Your task to perform on an android device: allow cookies in the chrome app Image 0: 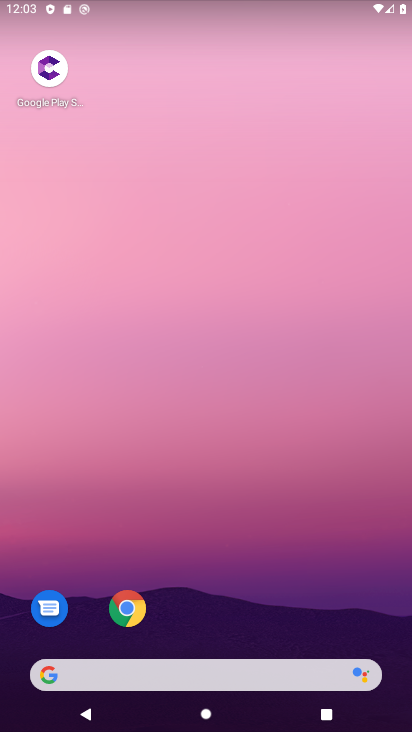
Step 0: click (118, 612)
Your task to perform on an android device: allow cookies in the chrome app Image 1: 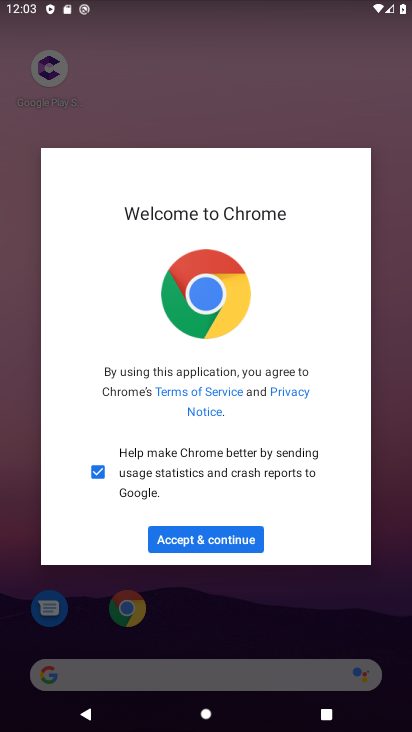
Step 1: click (227, 538)
Your task to perform on an android device: allow cookies in the chrome app Image 2: 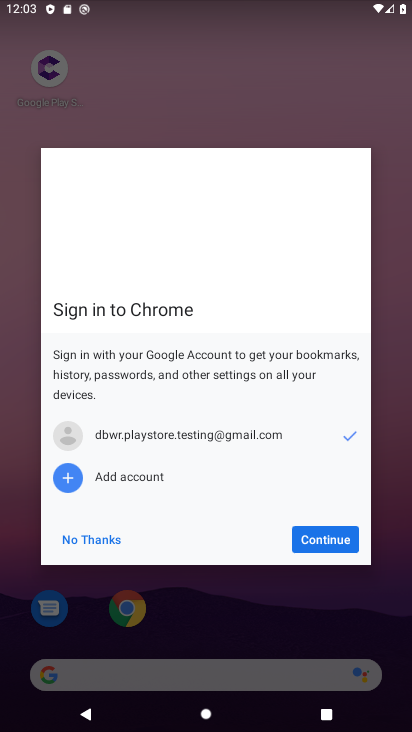
Step 2: click (339, 549)
Your task to perform on an android device: allow cookies in the chrome app Image 3: 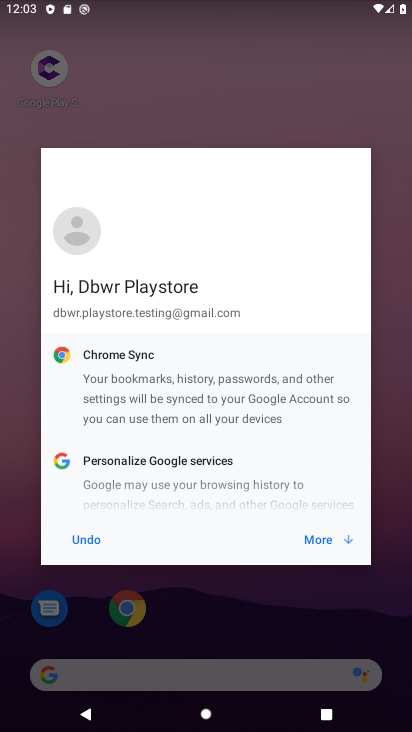
Step 3: click (339, 549)
Your task to perform on an android device: allow cookies in the chrome app Image 4: 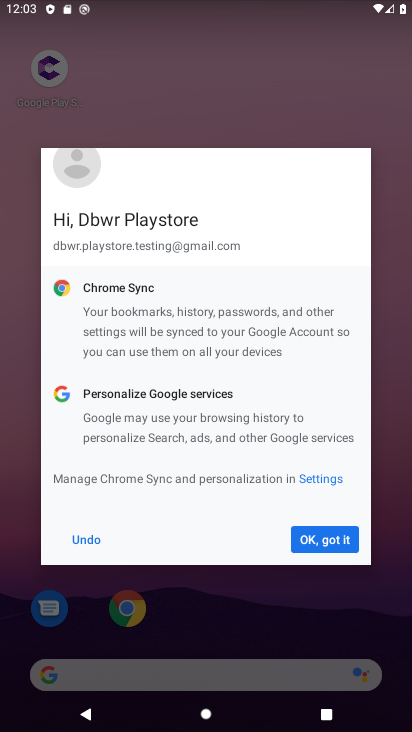
Step 4: click (331, 534)
Your task to perform on an android device: allow cookies in the chrome app Image 5: 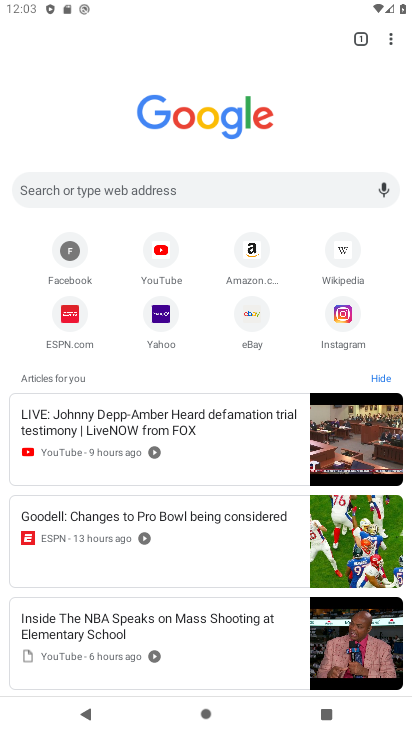
Step 5: click (393, 39)
Your task to perform on an android device: allow cookies in the chrome app Image 6: 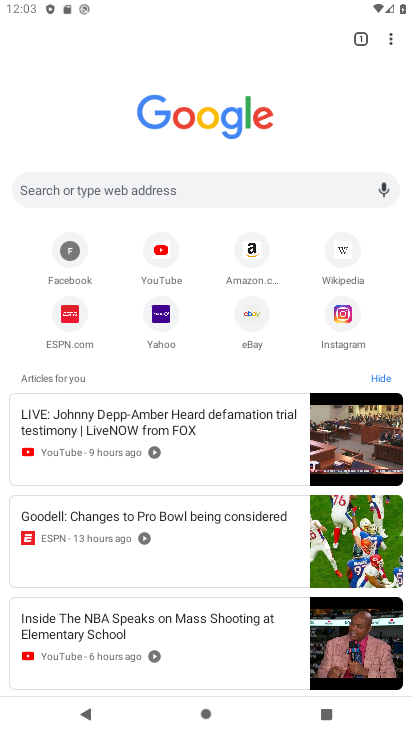
Step 6: click (393, 39)
Your task to perform on an android device: allow cookies in the chrome app Image 7: 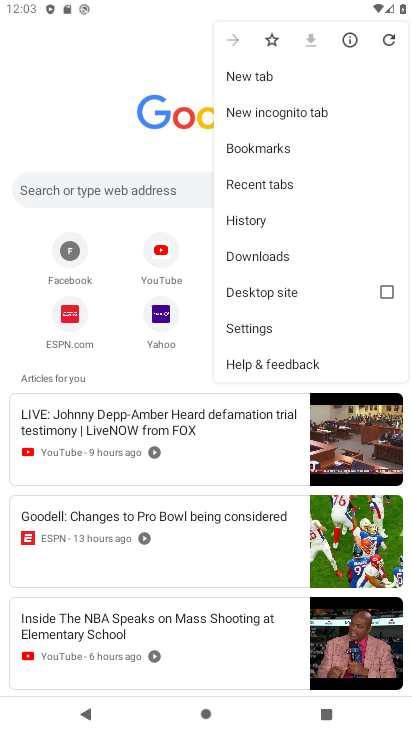
Step 7: click (288, 328)
Your task to perform on an android device: allow cookies in the chrome app Image 8: 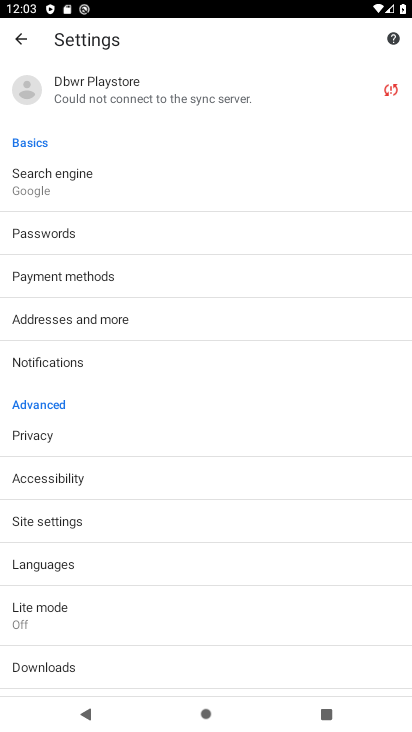
Step 8: click (71, 523)
Your task to perform on an android device: allow cookies in the chrome app Image 9: 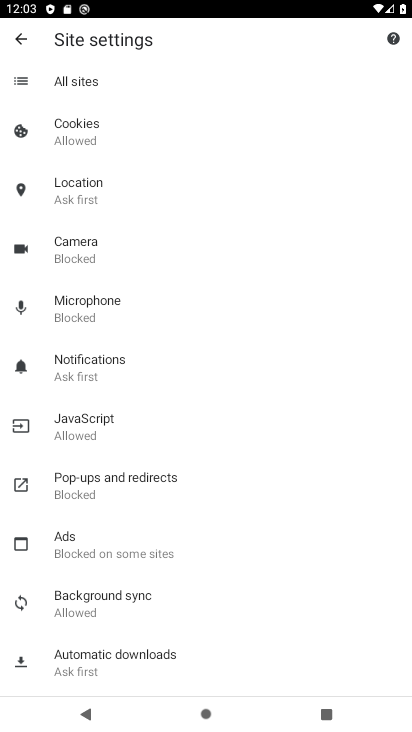
Step 9: click (86, 141)
Your task to perform on an android device: allow cookies in the chrome app Image 10: 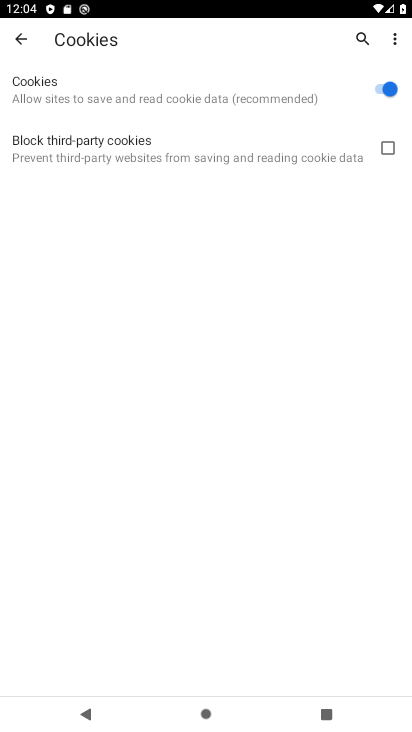
Step 10: task complete